Your task to perform on an android device: Open Yahoo.com Image 0: 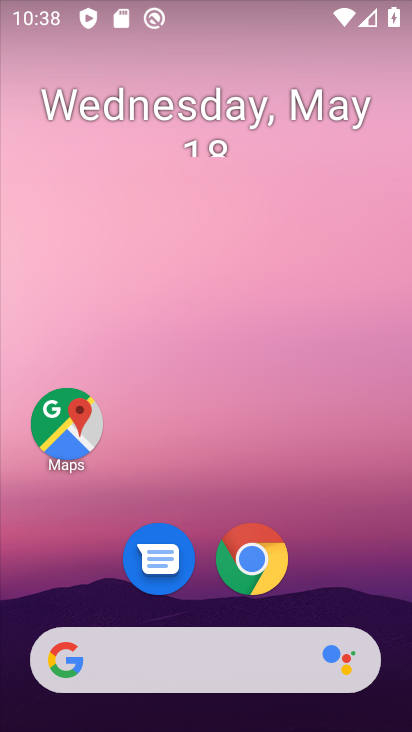
Step 0: click (229, 564)
Your task to perform on an android device: Open Yahoo.com Image 1: 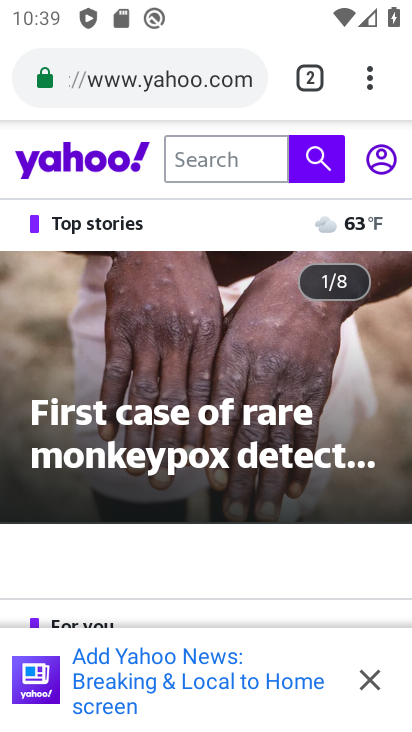
Step 1: task complete